Your task to perform on an android device: Go to Android settings Image 0: 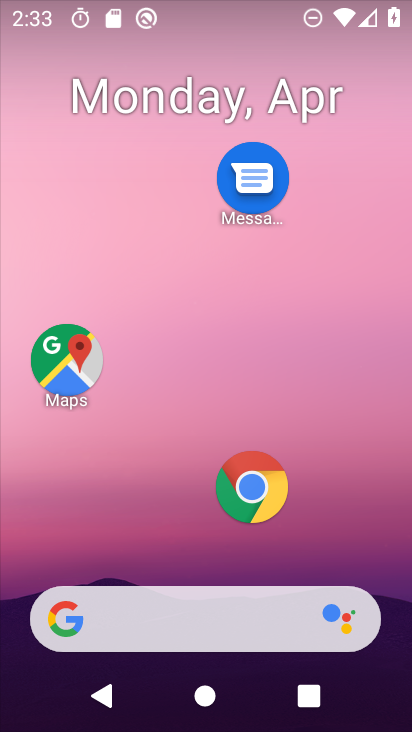
Step 0: drag from (140, 510) to (181, 2)
Your task to perform on an android device: Go to Android settings Image 1: 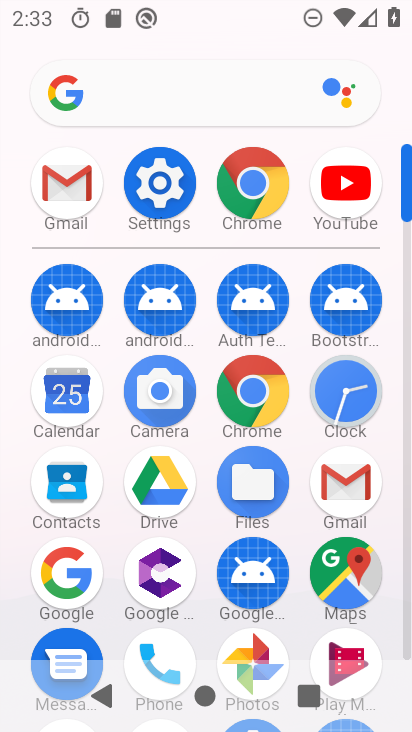
Step 1: drag from (293, 612) to (311, 144)
Your task to perform on an android device: Go to Android settings Image 2: 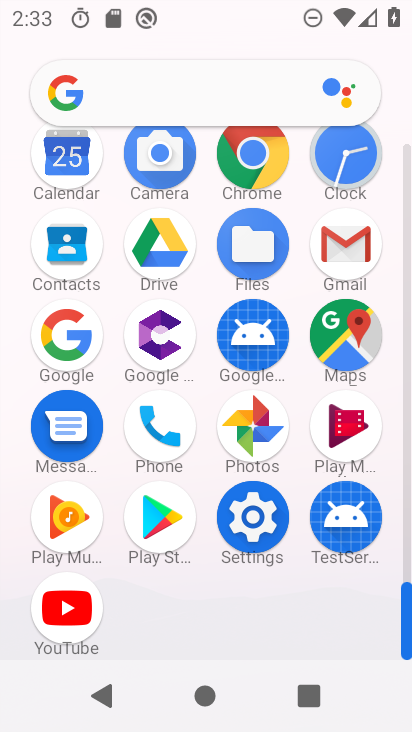
Step 2: click (255, 534)
Your task to perform on an android device: Go to Android settings Image 3: 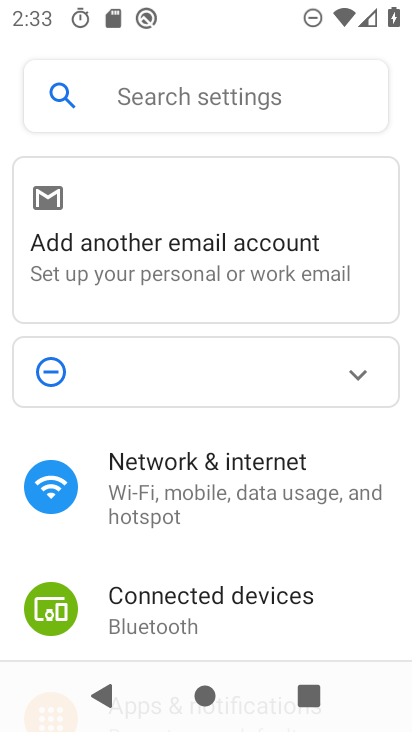
Step 3: drag from (259, 644) to (323, 132)
Your task to perform on an android device: Go to Android settings Image 4: 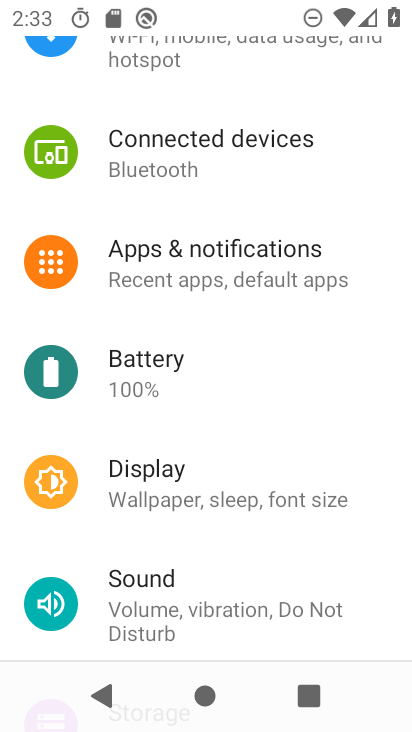
Step 4: drag from (227, 596) to (197, 117)
Your task to perform on an android device: Go to Android settings Image 5: 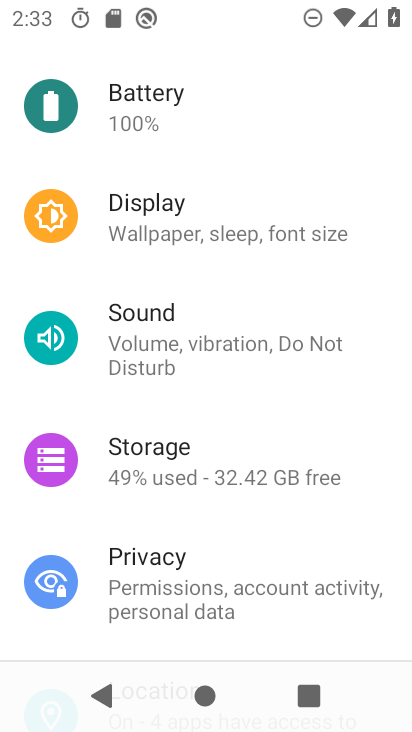
Step 5: drag from (214, 645) to (221, 100)
Your task to perform on an android device: Go to Android settings Image 6: 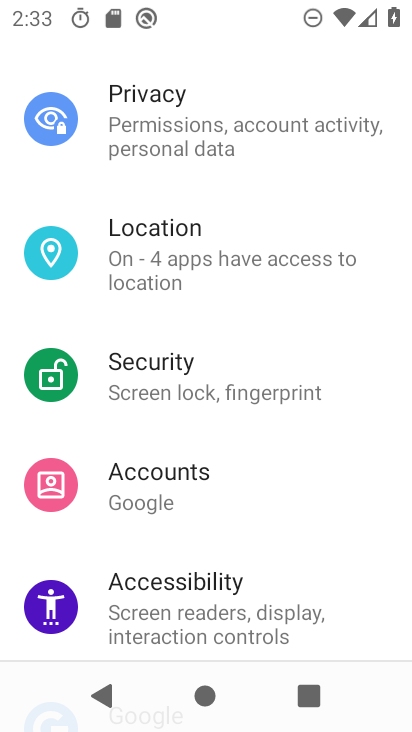
Step 6: drag from (222, 577) to (244, 163)
Your task to perform on an android device: Go to Android settings Image 7: 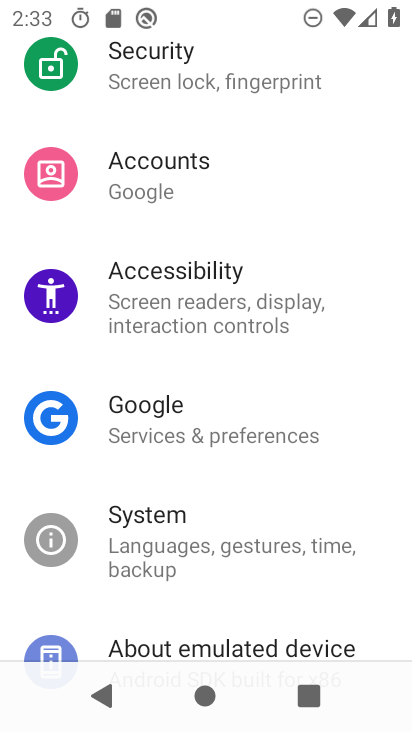
Step 7: drag from (207, 569) to (241, 157)
Your task to perform on an android device: Go to Android settings Image 8: 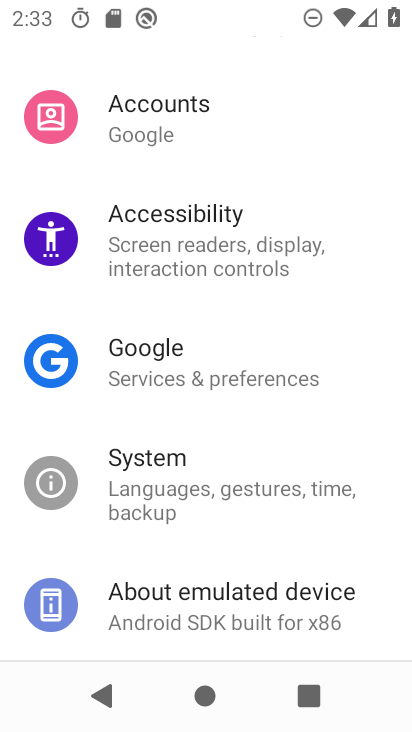
Step 8: click (227, 603)
Your task to perform on an android device: Go to Android settings Image 9: 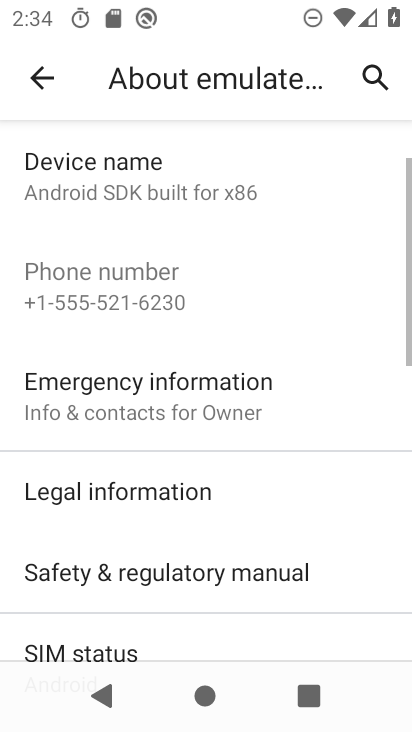
Step 9: drag from (241, 285) to (254, 158)
Your task to perform on an android device: Go to Android settings Image 10: 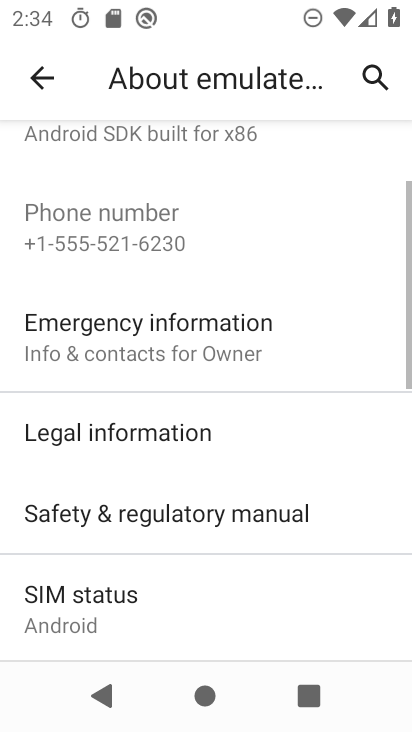
Step 10: drag from (224, 625) to (302, 165)
Your task to perform on an android device: Go to Android settings Image 11: 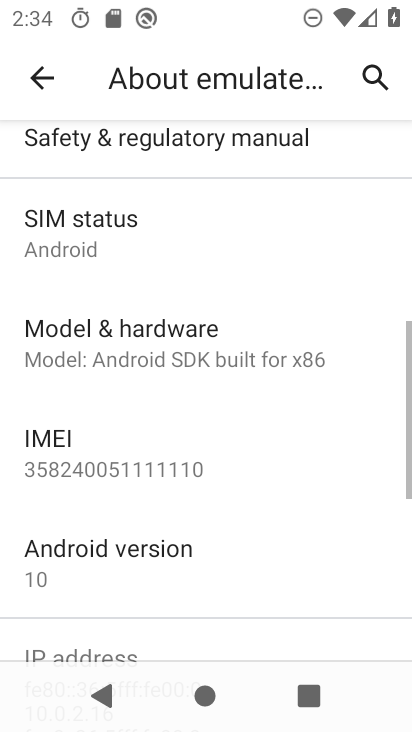
Step 11: click (123, 562)
Your task to perform on an android device: Go to Android settings Image 12: 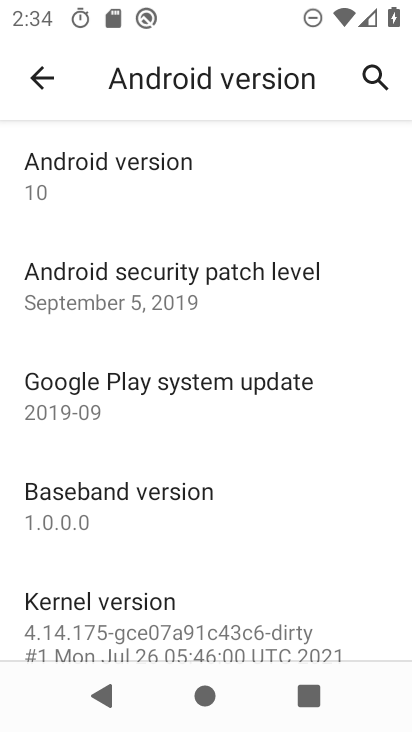
Step 12: task complete